Your task to perform on an android device: delete browsing data in the chrome app Image 0: 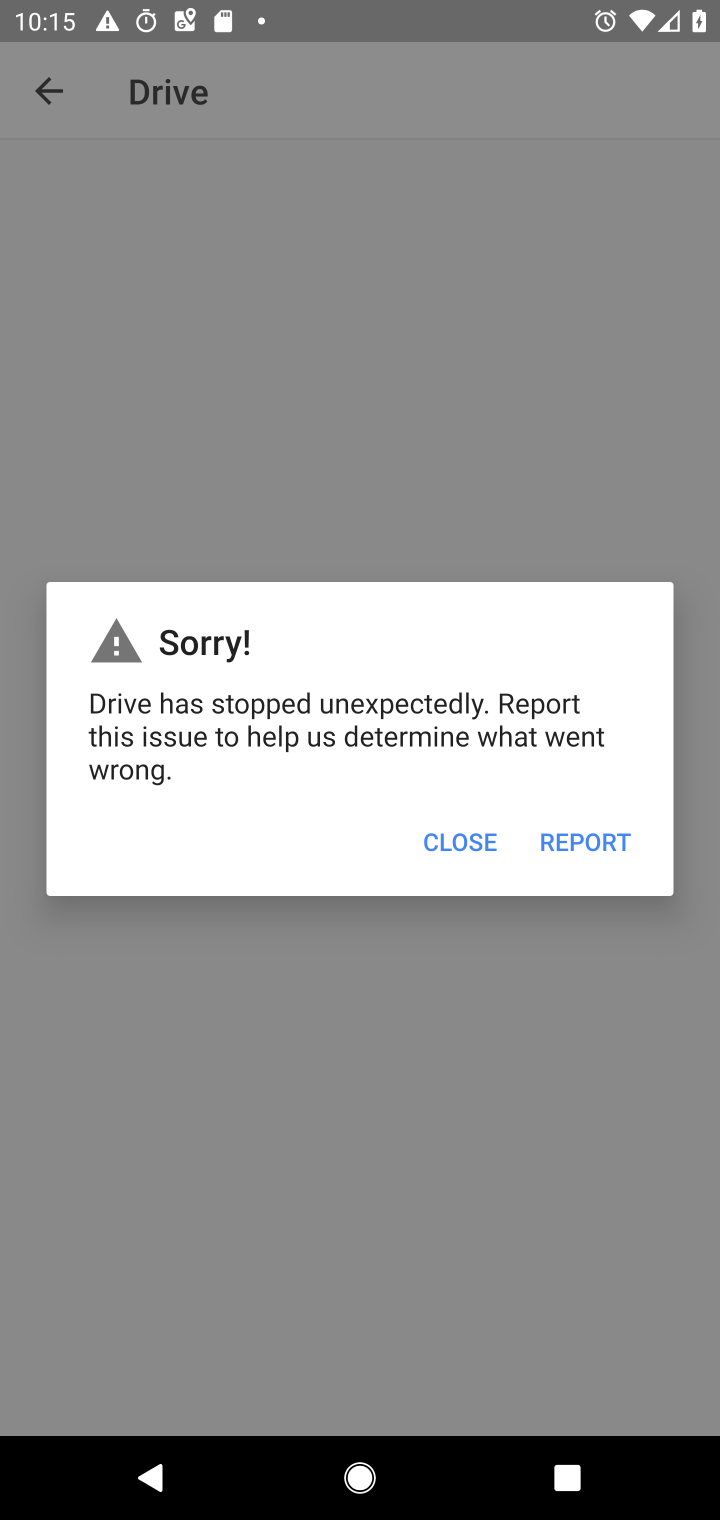
Step 0: press home button
Your task to perform on an android device: delete browsing data in the chrome app Image 1: 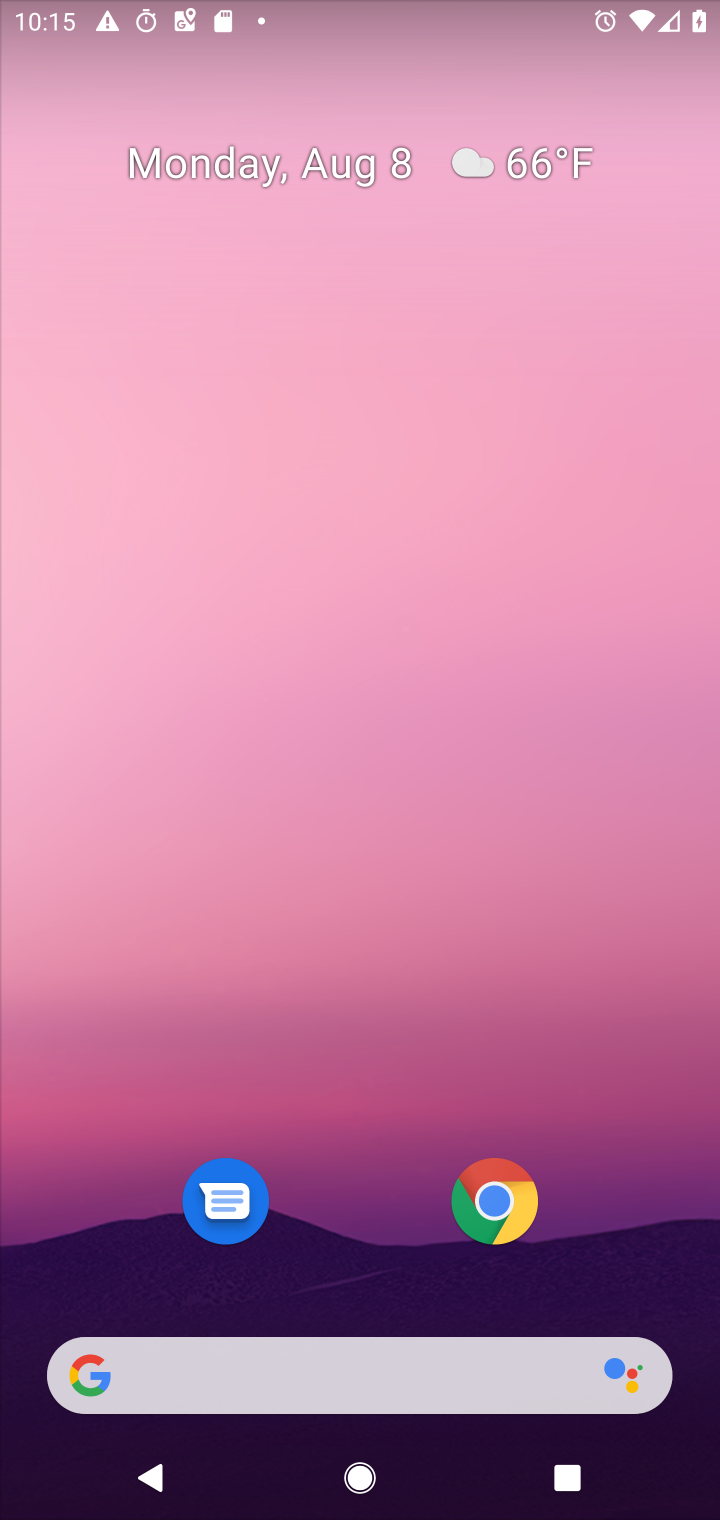
Step 1: drag from (629, 1252) to (674, 429)
Your task to perform on an android device: delete browsing data in the chrome app Image 2: 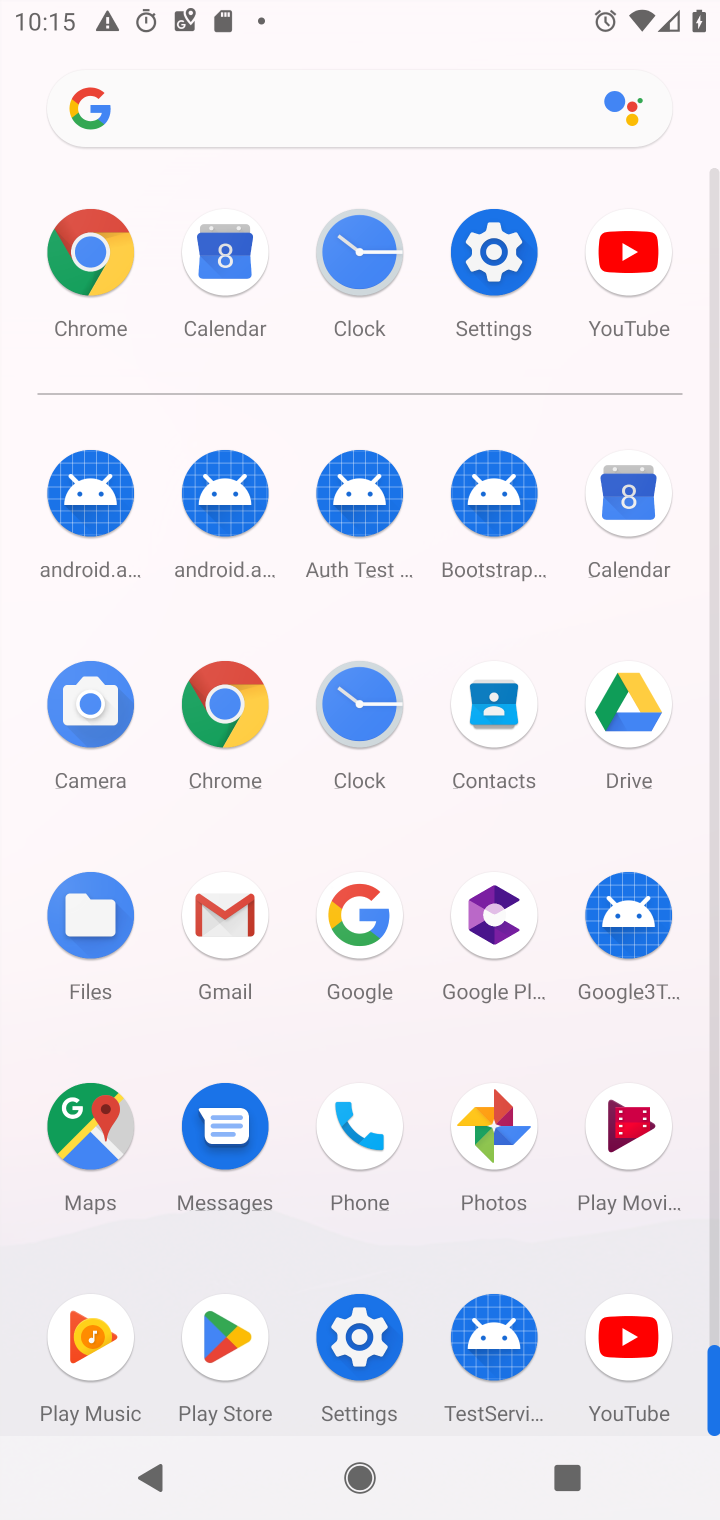
Step 2: click (234, 716)
Your task to perform on an android device: delete browsing data in the chrome app Image 3: 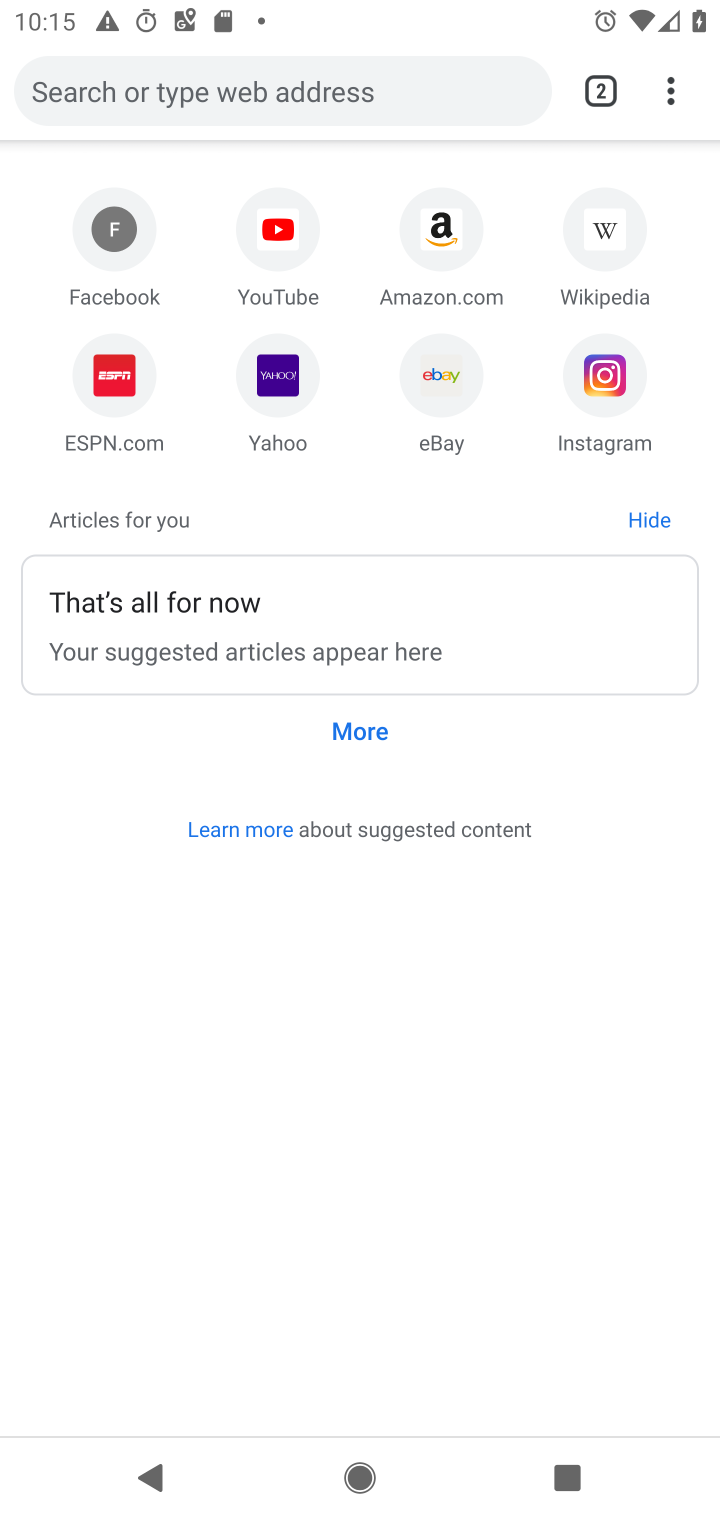
Step 3: click (675, 93)
Your task to perform on an android device: delete browsing data in the chrome app Image 4: 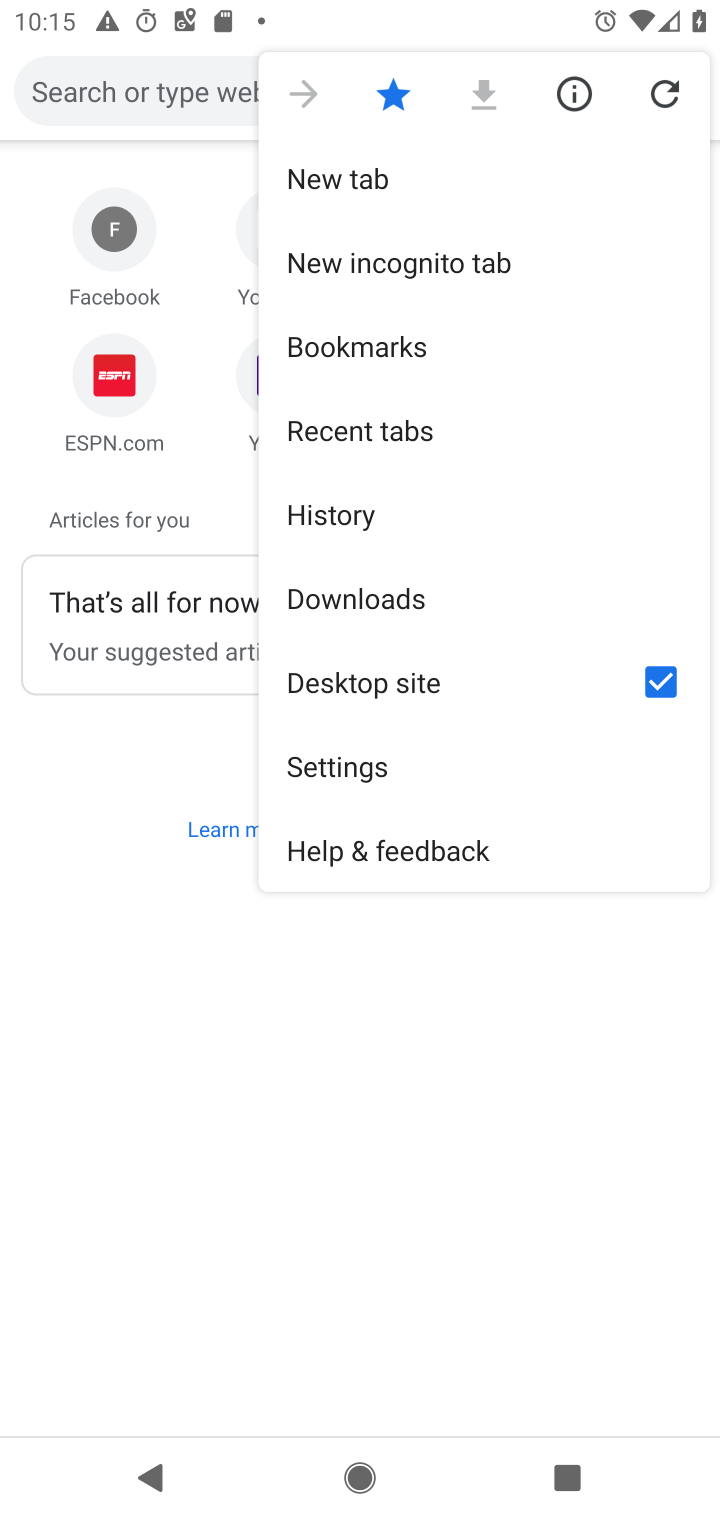
Step 4: click (371, 761)
Your task to perform on an android device: delete browsing data in the chrome app Image 5: 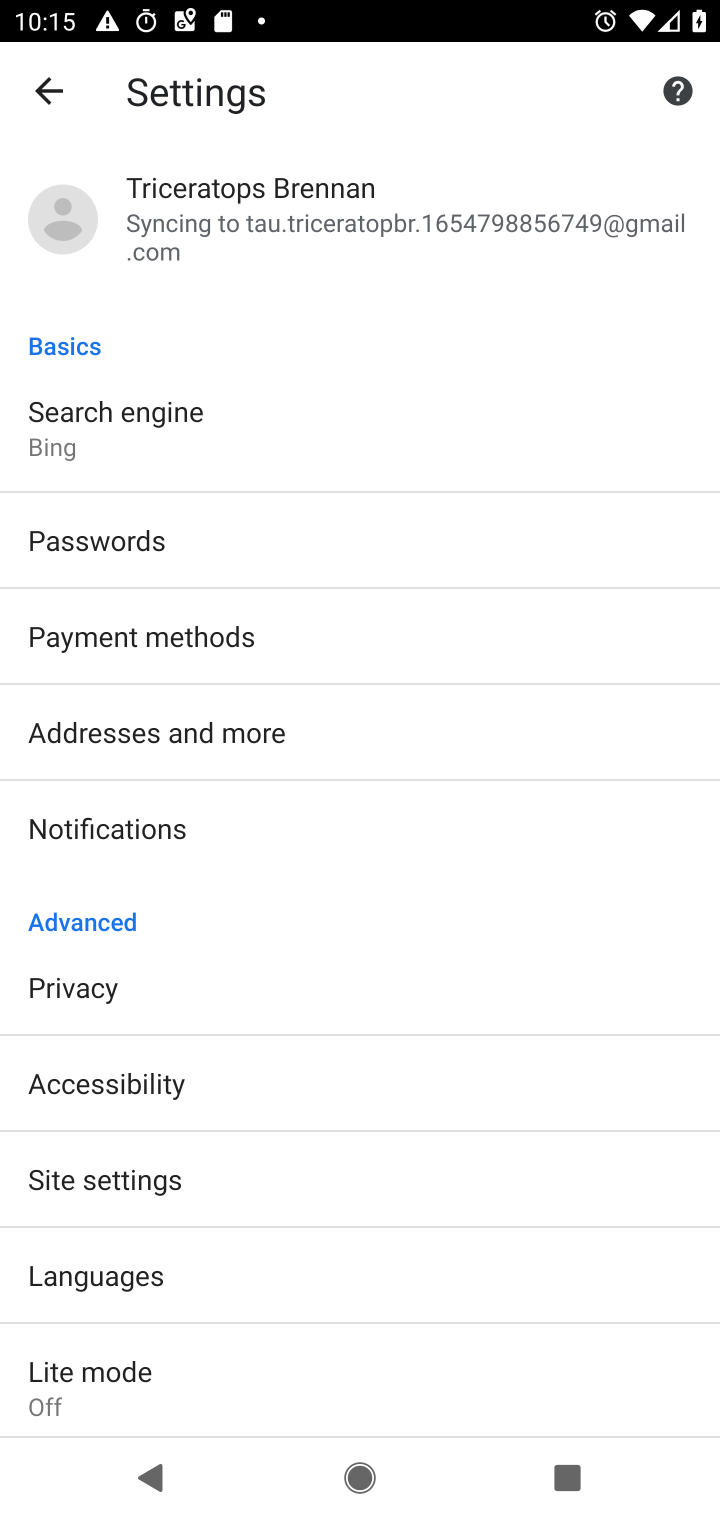
Step 5: drag from (464, 897) to (473, 706)
Your task to perform on an android device: delete browsing data in the chrome app Image 6: 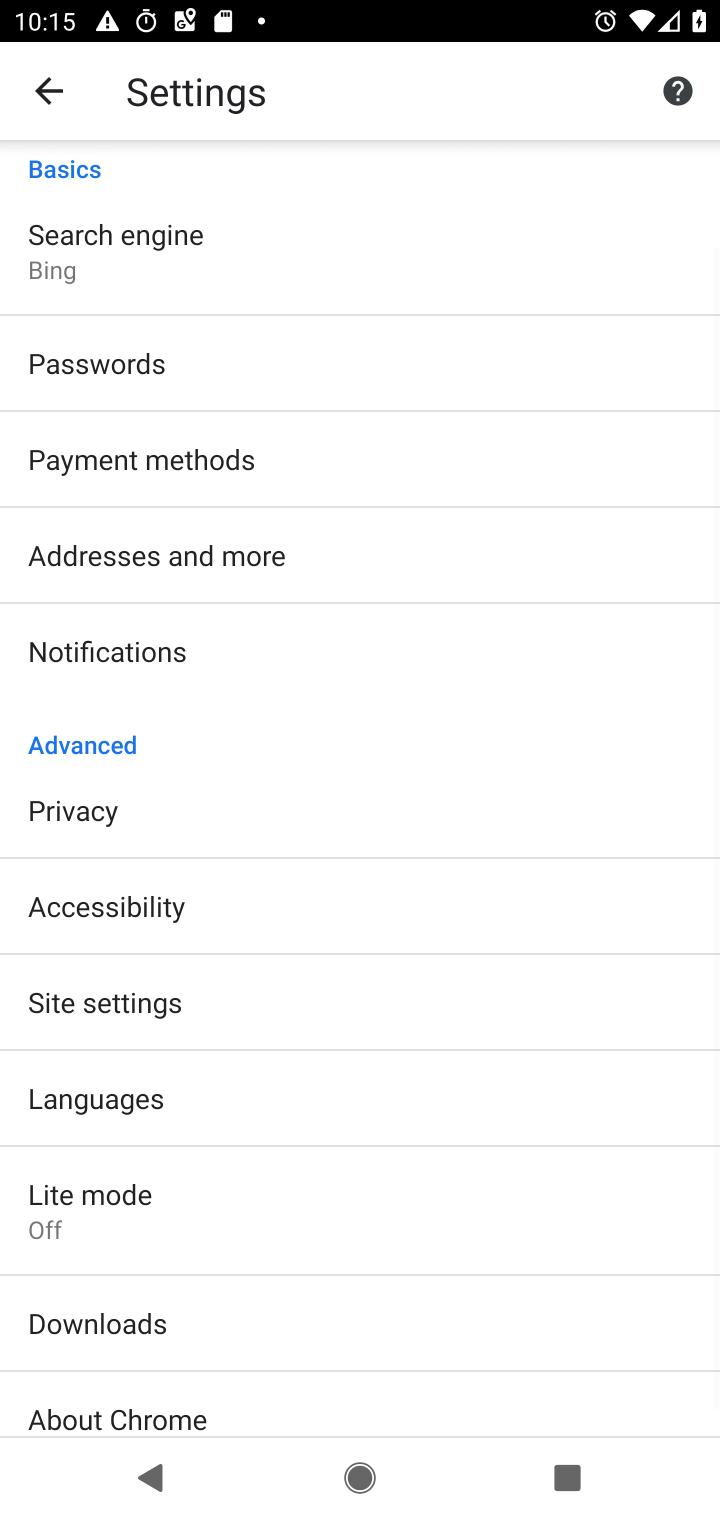
Step 6: drag from (485, 959) to (513, 706)
Your task to perform on an android device: delete browsing data in the chrome app Image 7: 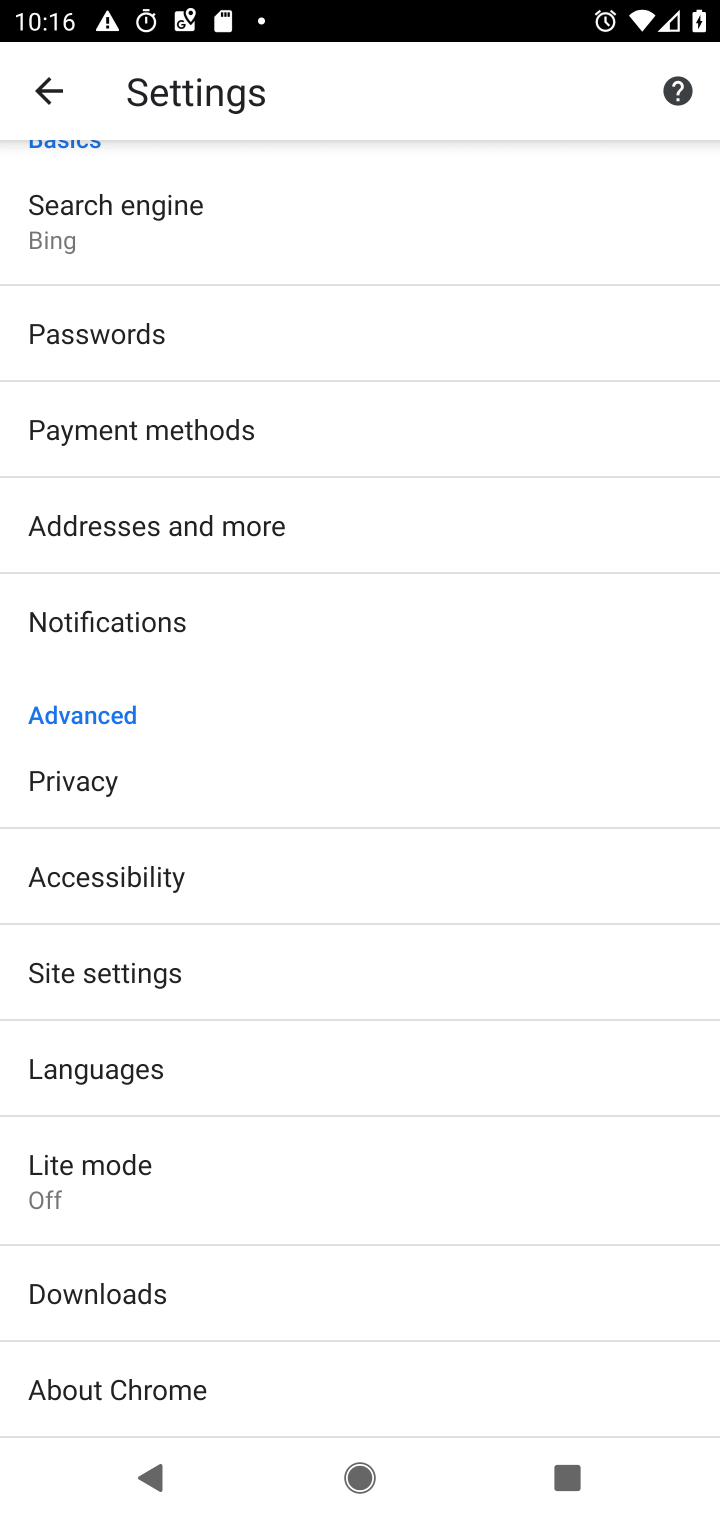
Step 7: click (388, 799)
Your task to perform on an android device: delete browsing data in the chrome app Image 8: 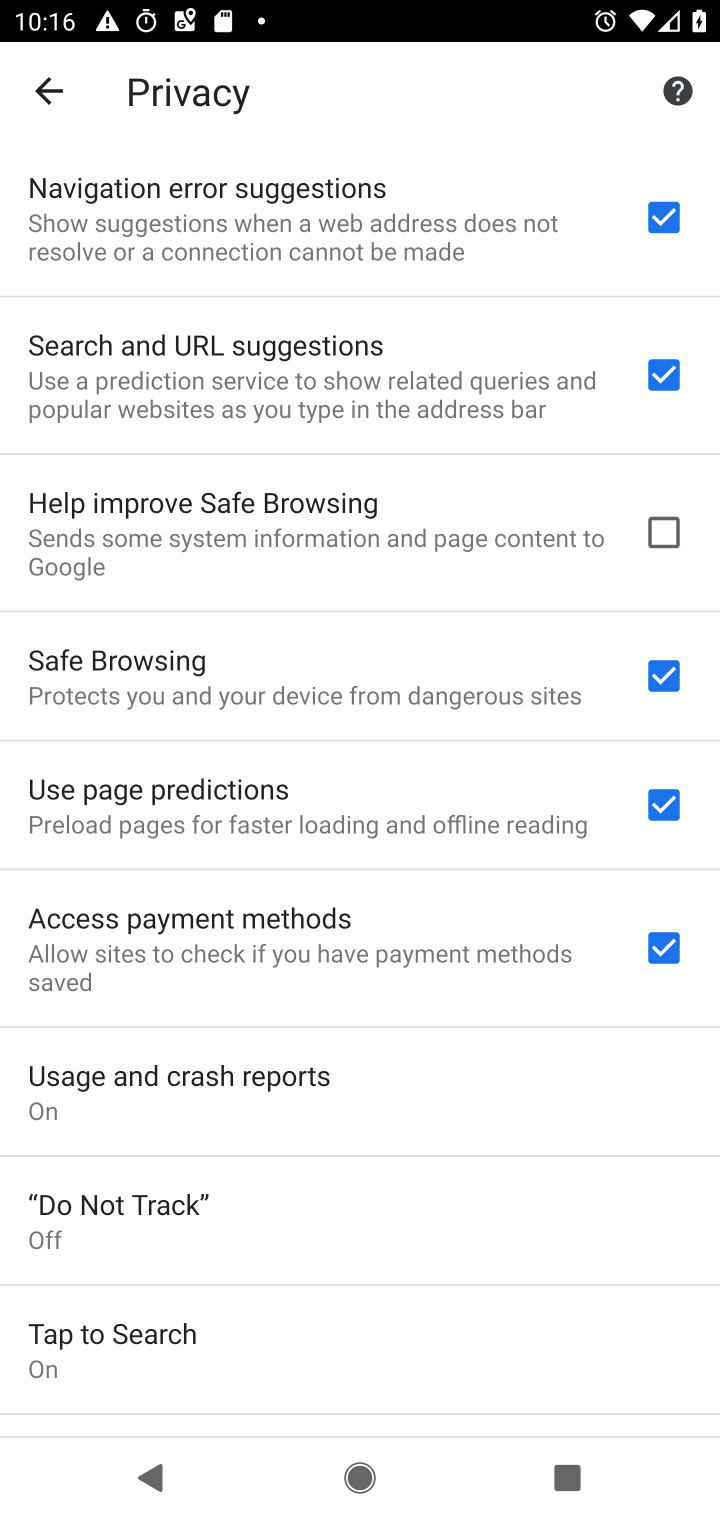
Step 8: drag from (428, 1057) to (486, 722)
Your task to perform on an android device: delete browsing data in the chrome app Image 9: 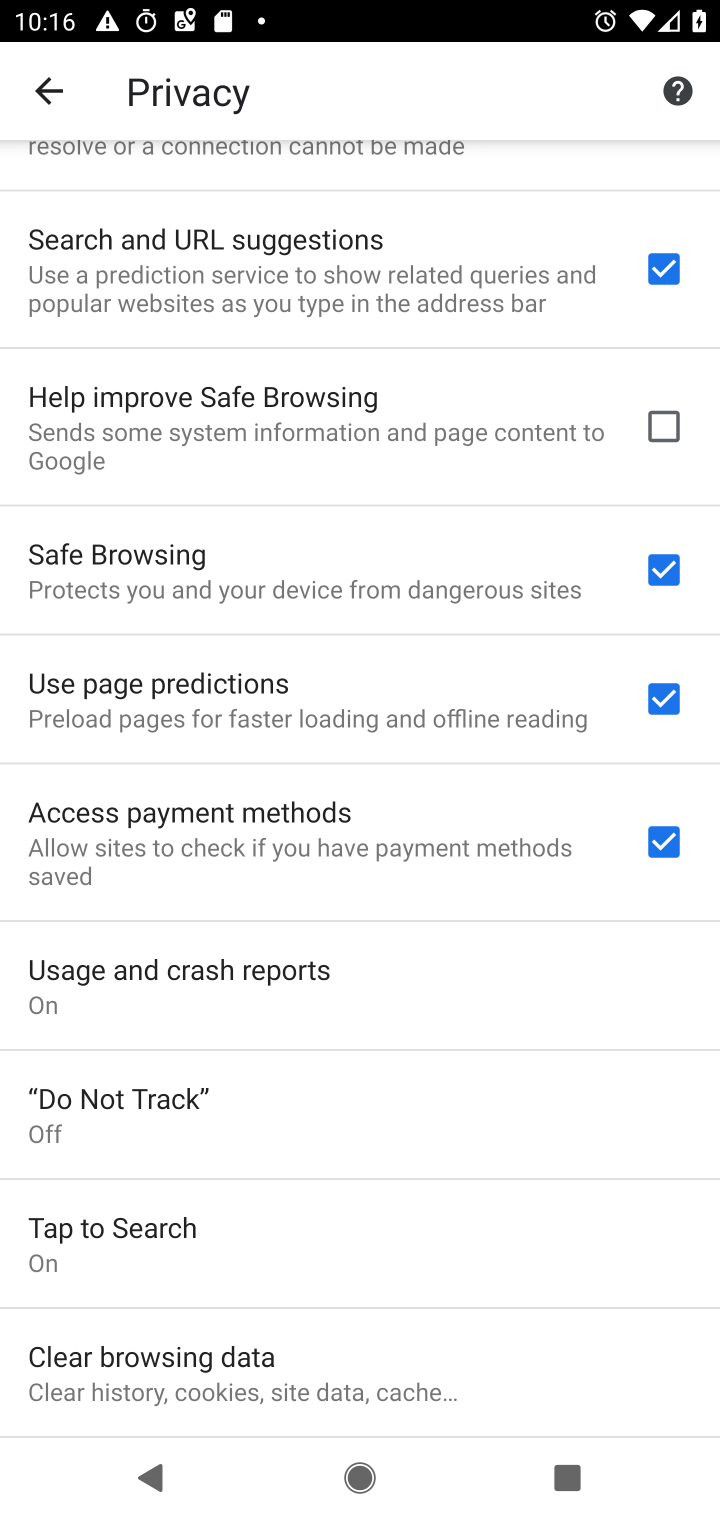
Step 9: click (395, 1377)
Your task to perform on an android device: delete browsing data in the chrome app Image 10: 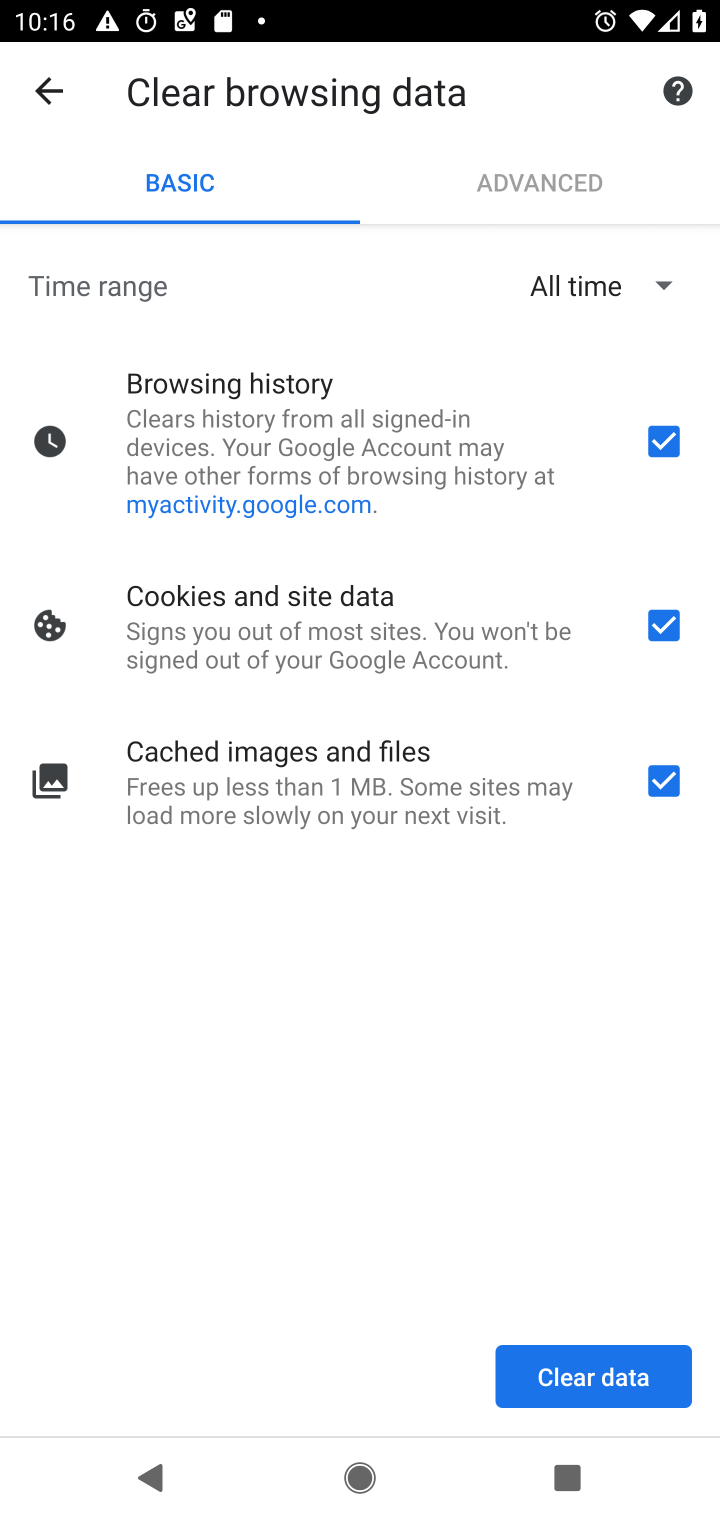
Step 10: click (587, 1377)
Your task to perform on an android device: delete browsing data in the chrome app Image 11: 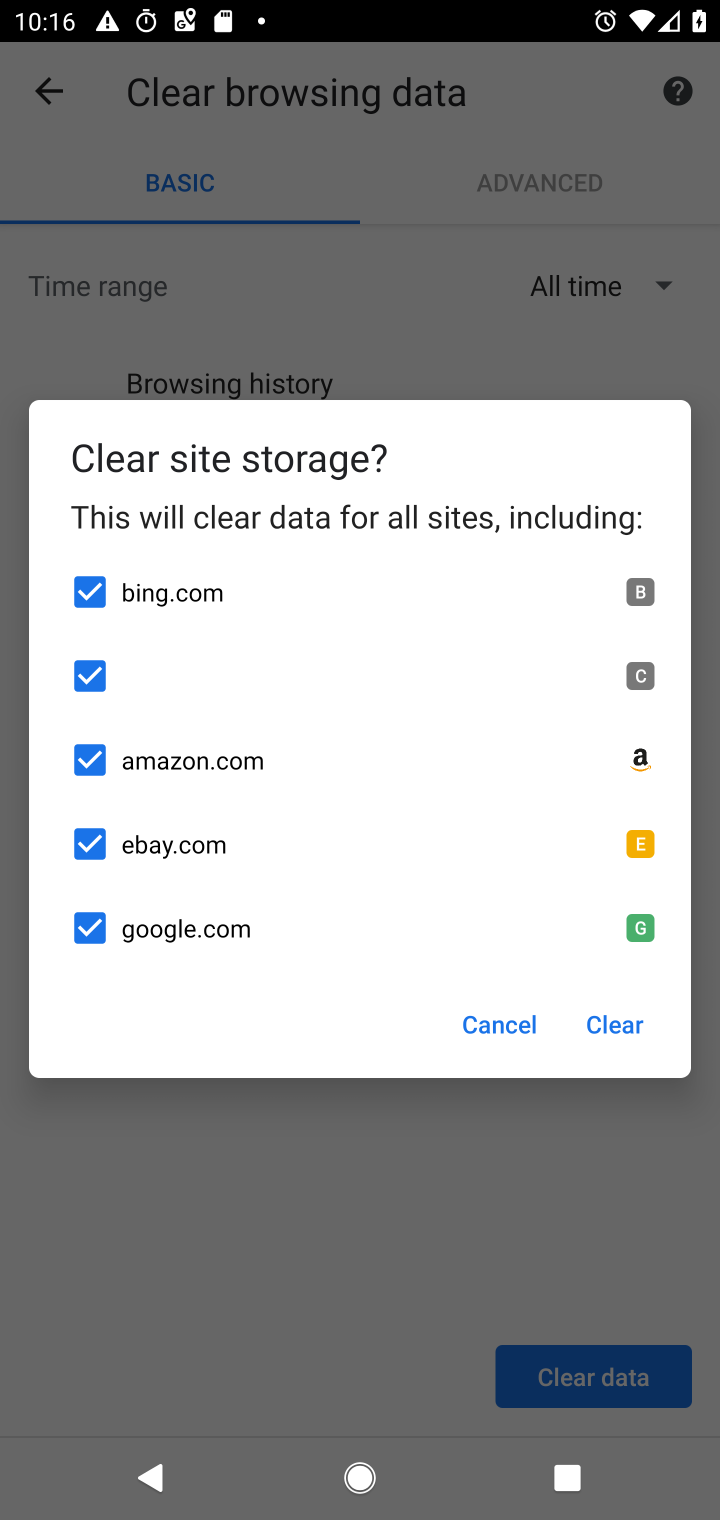
Step 11: click (618, 1034)
Your task to perform on an android device: delete browsing data in the chrome app Image 12: 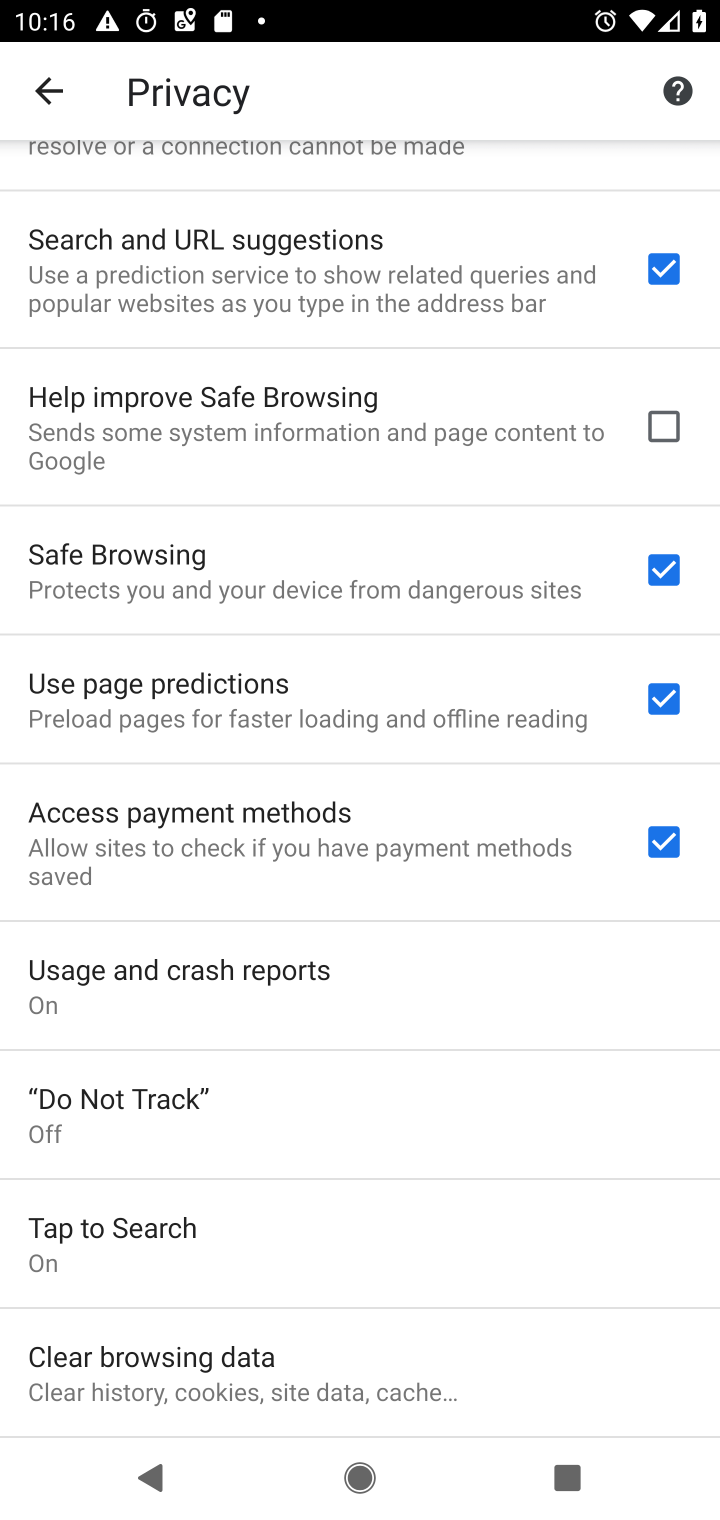
Step 12: task complete